Your task to perform on an android device: Open Yahoo.com Image 0: 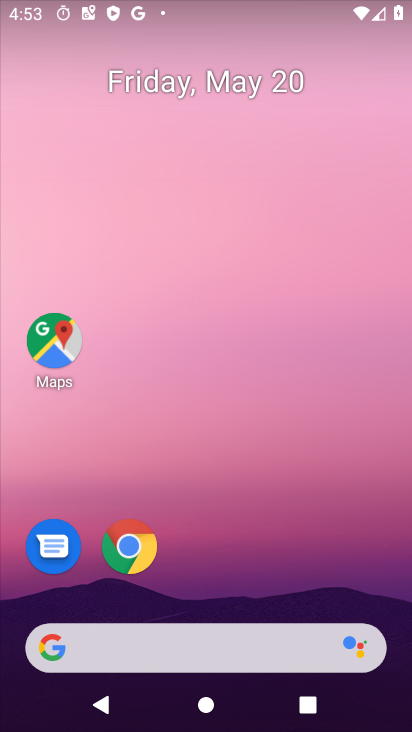
Step 0: click (130, 550)
Your task to perform on an android device: Open Yahoo.com Image 1: 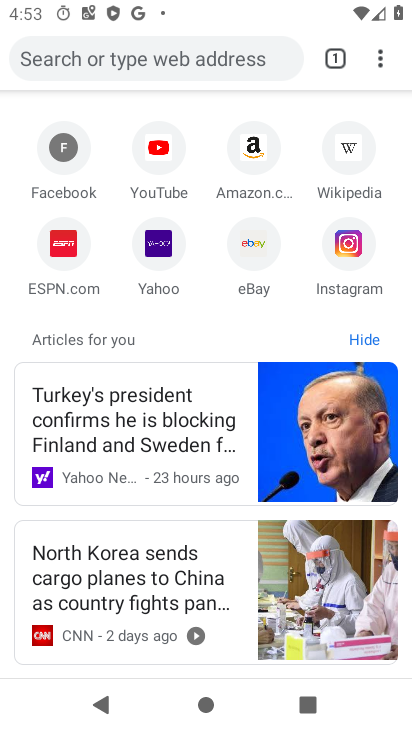
Step 1: click (156, 57)
Your task to perform on an android device: Open Yahoo.com Image 2: 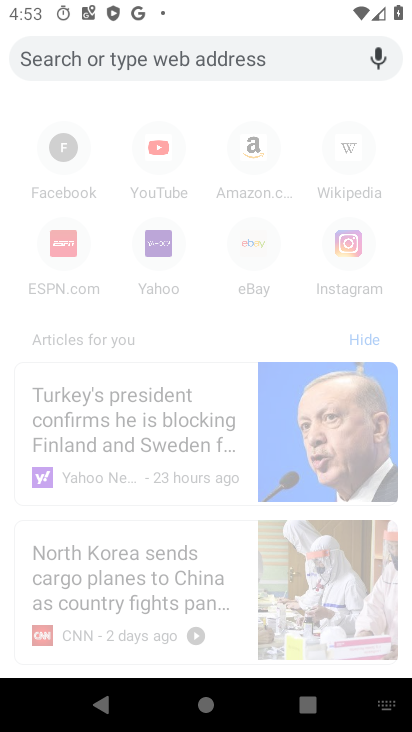
Step 2: type "Yahoo.com"
Your task to perform on an android device: Open Yahoo.com Image 3: 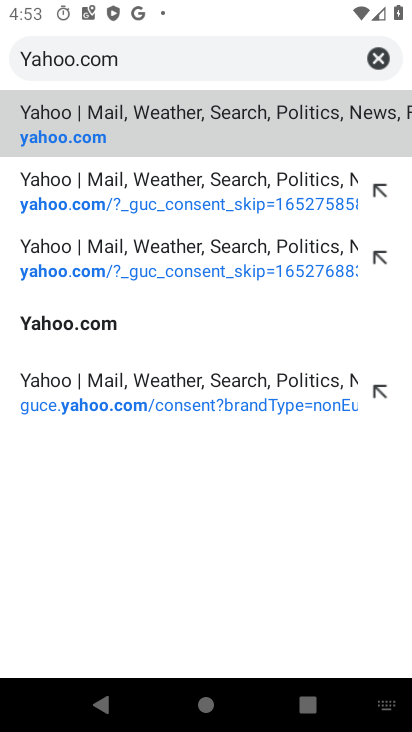
Step 3: click (107, 318)
Your task to perform on an android device: Open Yahoo.com Image 4: 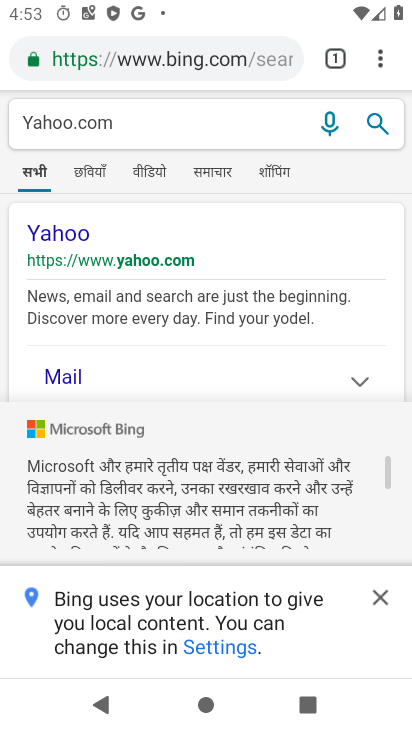
Step 4: click (140, 271)
Your task to perform on an android device: Open Yahoo.com Image 5: 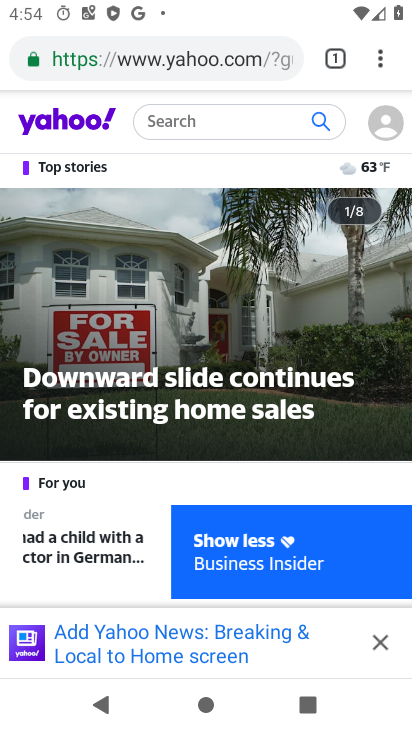
Step 5: task complete